Your task to perform on an android device: Add "alienware area 51" to the cart on ebay.com, then select checkout. Image 0: 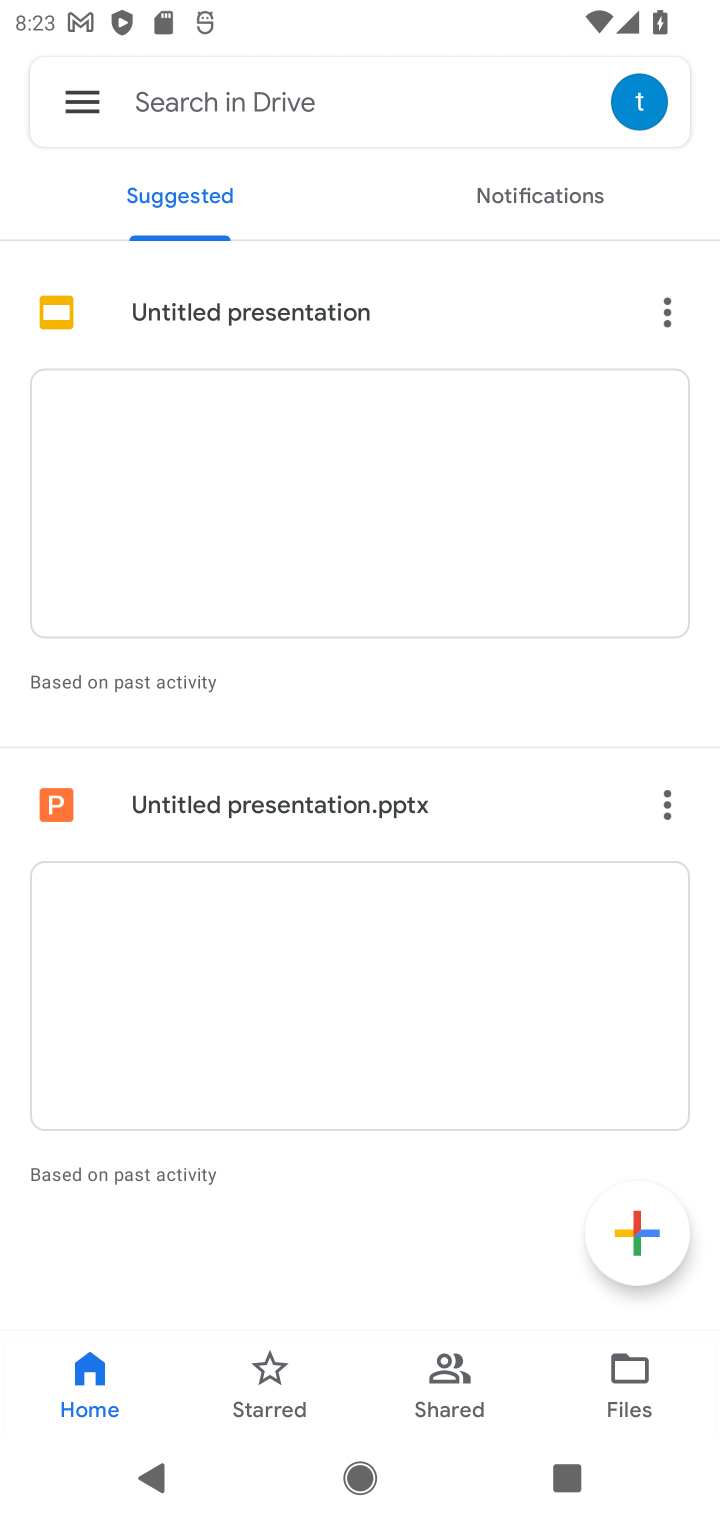
Step 0: press home button
Your task to perform on an android device: Add "alienware area 51" to the cart on ebay.com, then select checkout. Image 1: 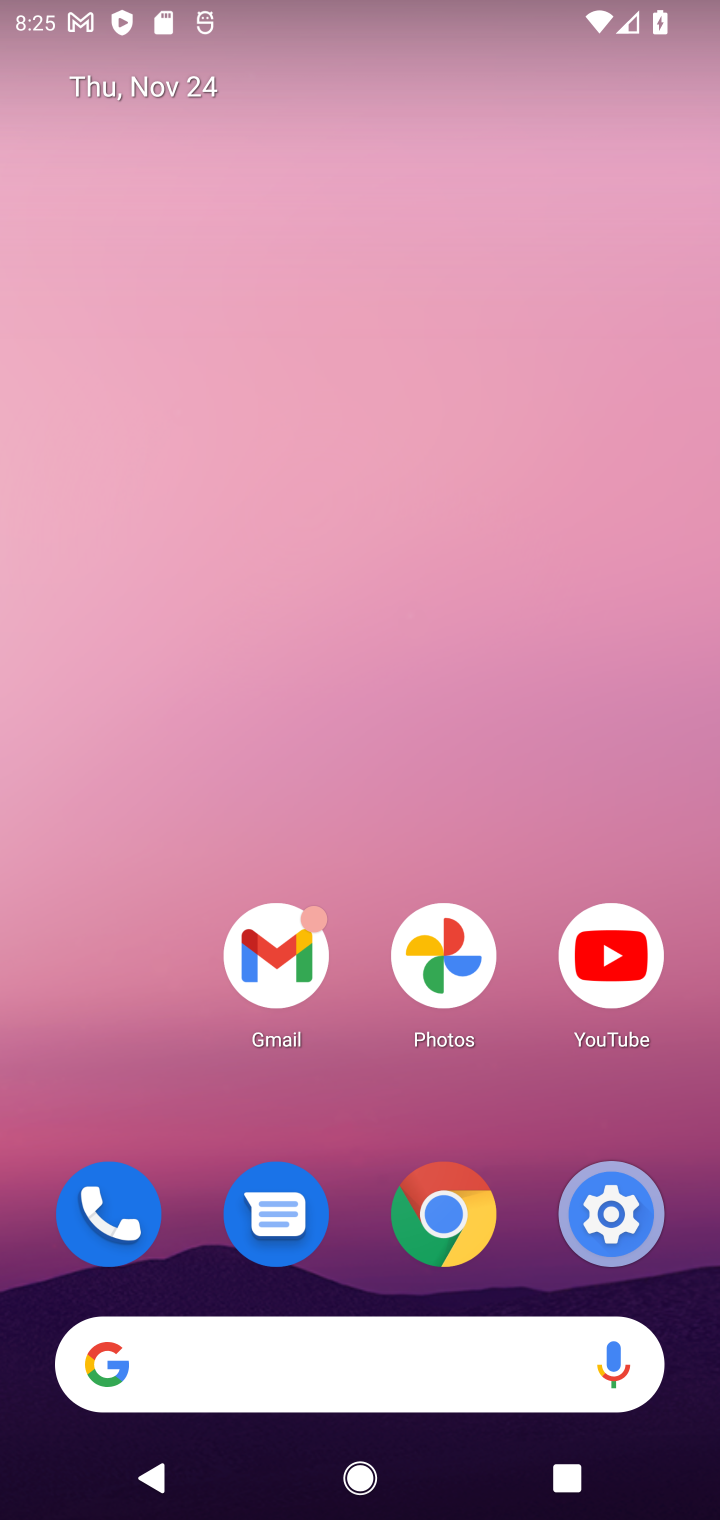
Step 1: click (360, 1352)
Your task to perform on an android device: Add "alienware area 51" to the cart on ebay.com, then select checkout. Image 2: 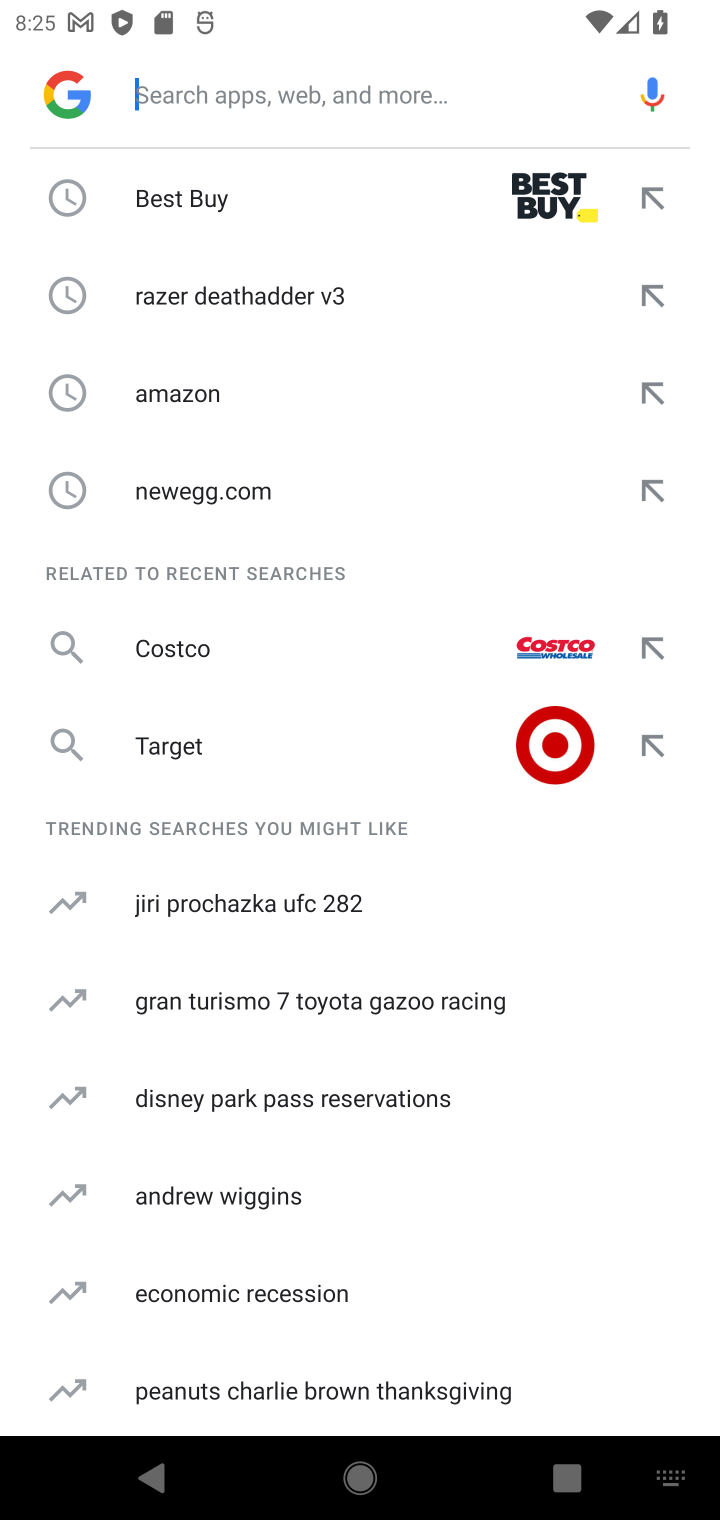
Step 2: type "ebay.com"
Your task to perform on an android device: Add "alienware area 51" to the cart on ebay.com, then select checkout. Image 3: 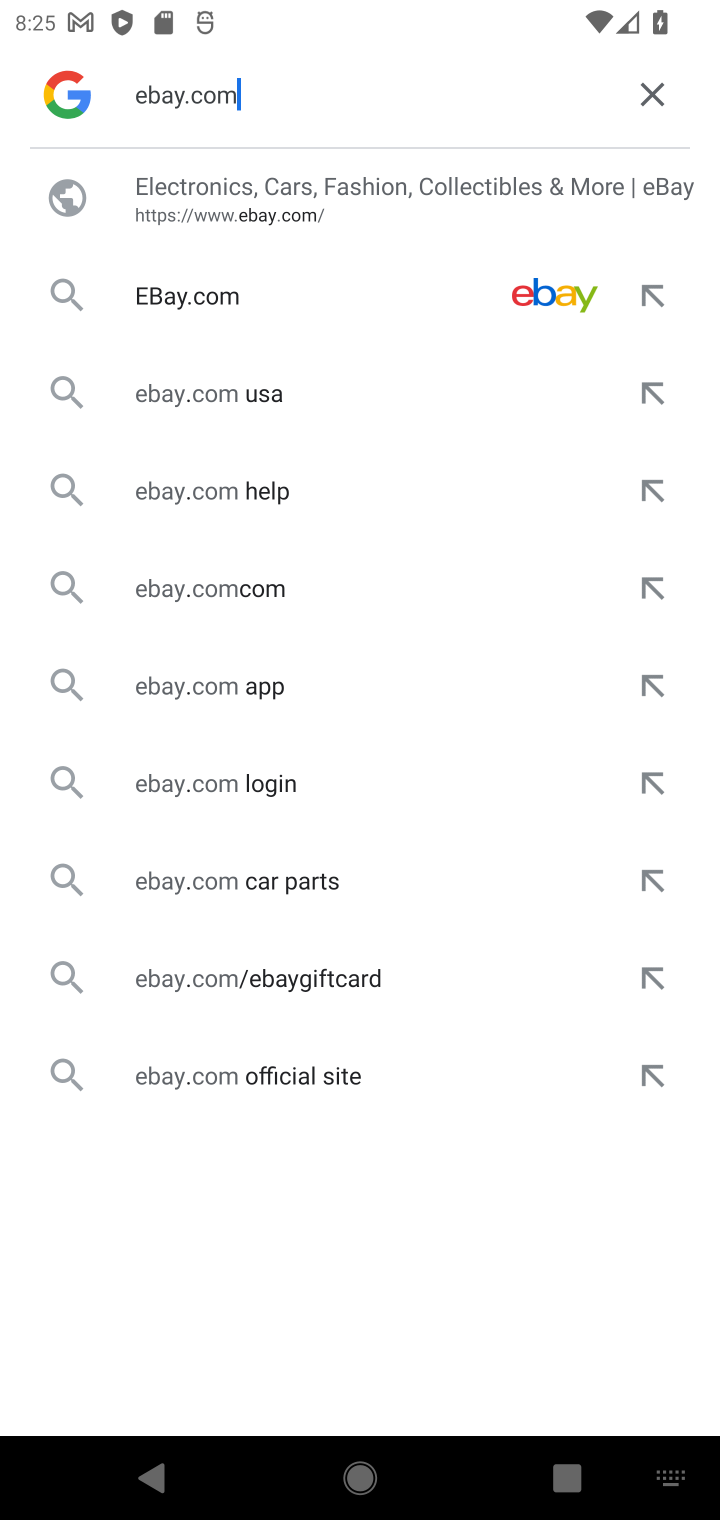
Step 3: click (281, 202)
Your task to perform on an android device: Add "alienware area 51" to the cart on ebay.com, then select checkout. Image 4: 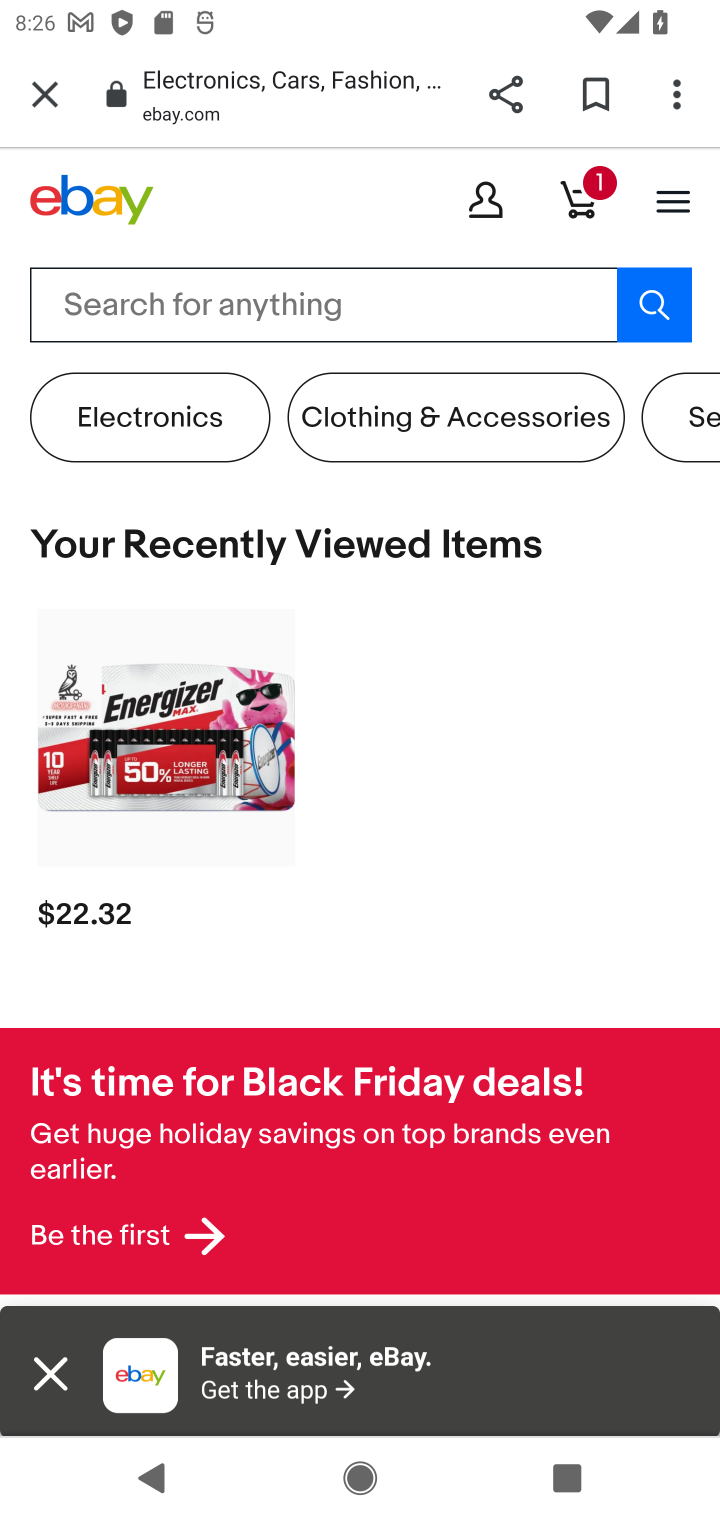
Step 4: click (271, 317)
Your task to perform on an android device: Add "alienware area 51" to the cart on ebay.com, then select checkout. Image 5: 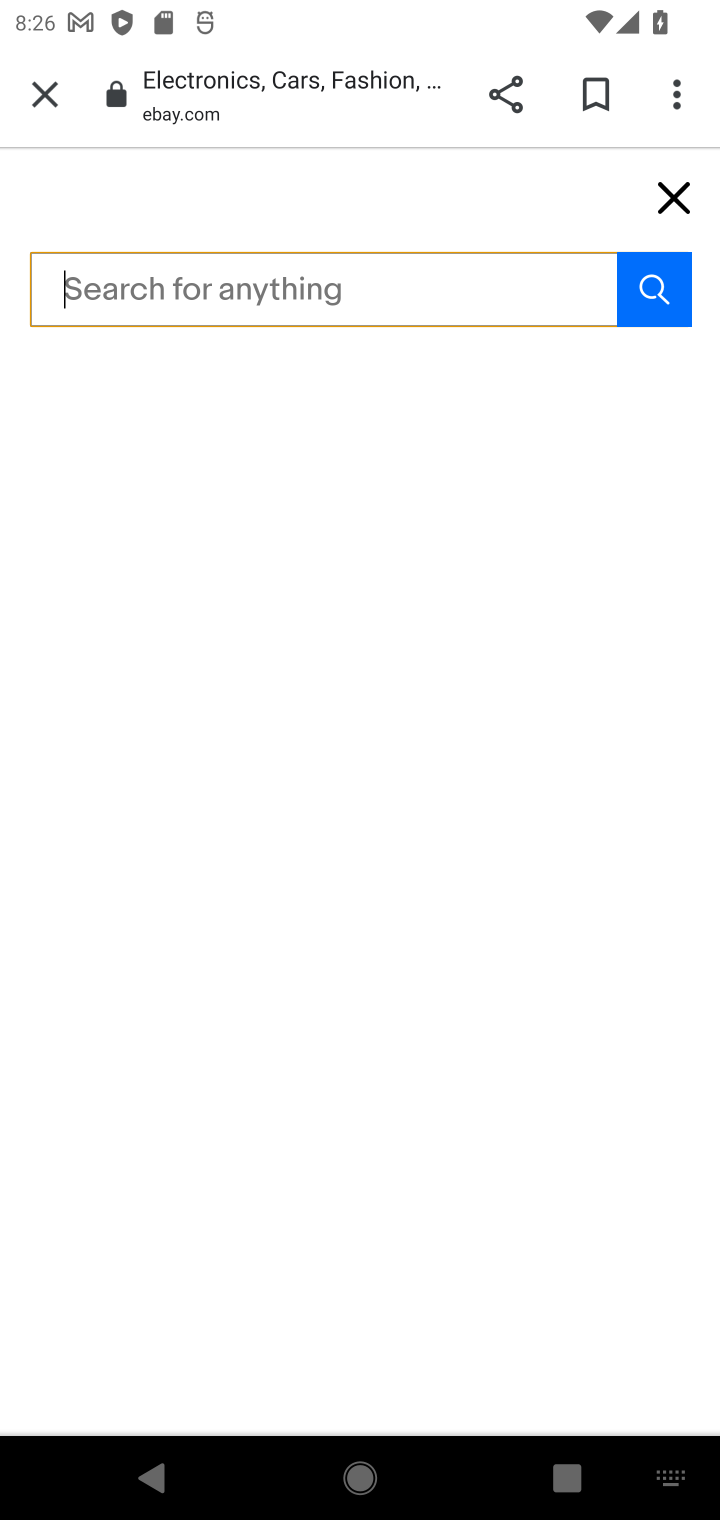
Step 5: type "alienware area 51"
Your task to perform on an android device: Add "alienware area 51" to the cart on ebay.com, then select checkout. Image 6: 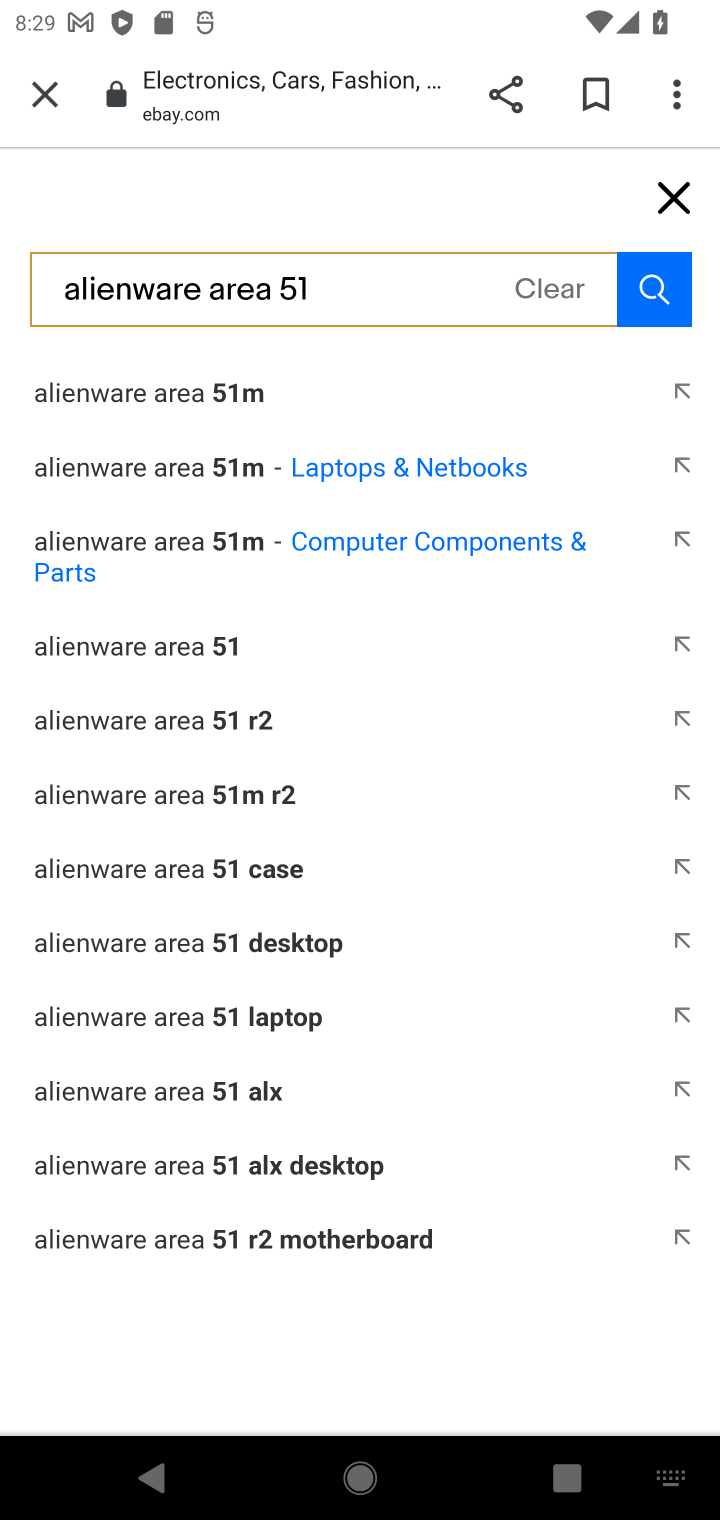
Step 6: click (129, 375)
Your task to perform on an android device: Add "alienware area 51" to the cart on ebay.com, then select checkout. Image 7: 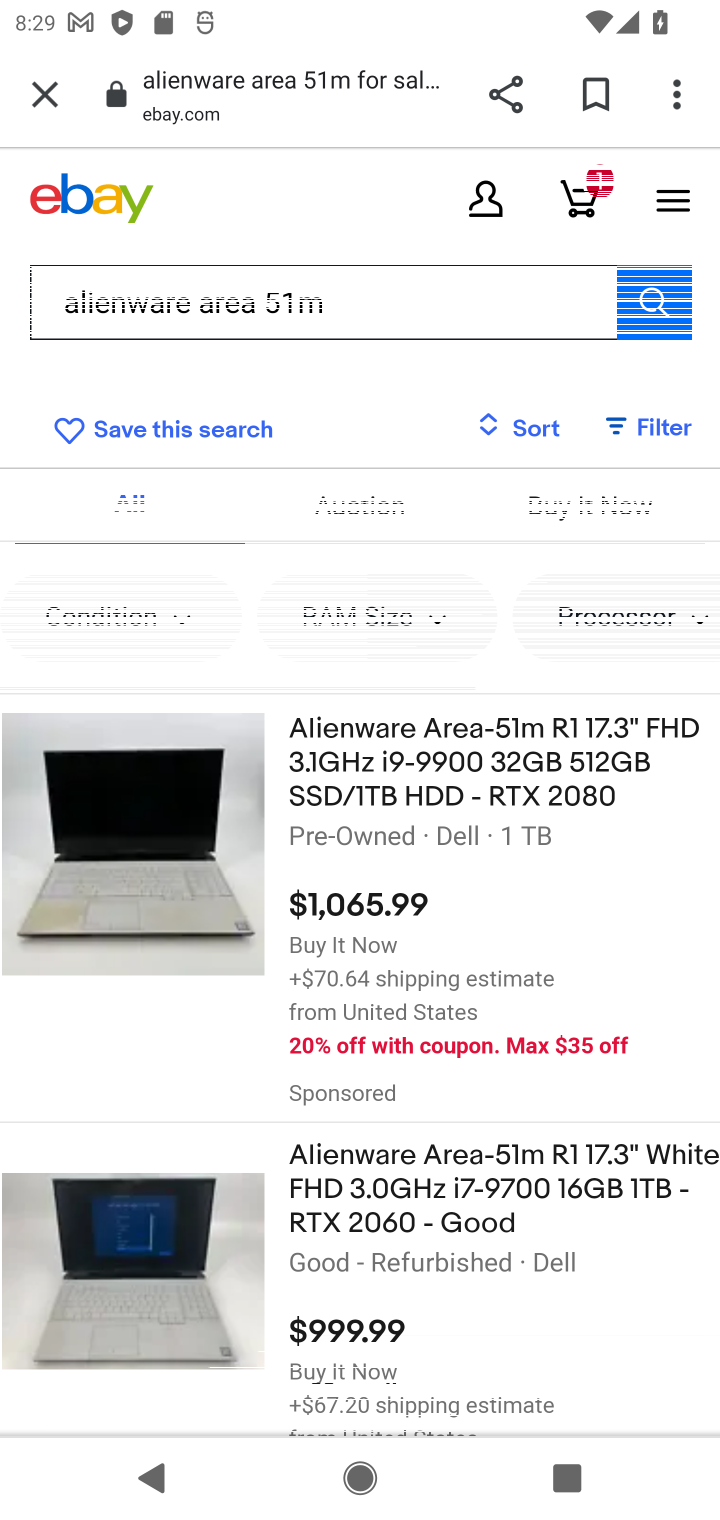
Step 7: click (403, 967)
Your task to perform on an android device: Add "alienware area 51" to the cart on ebay.com, then select checkout. Image 8: 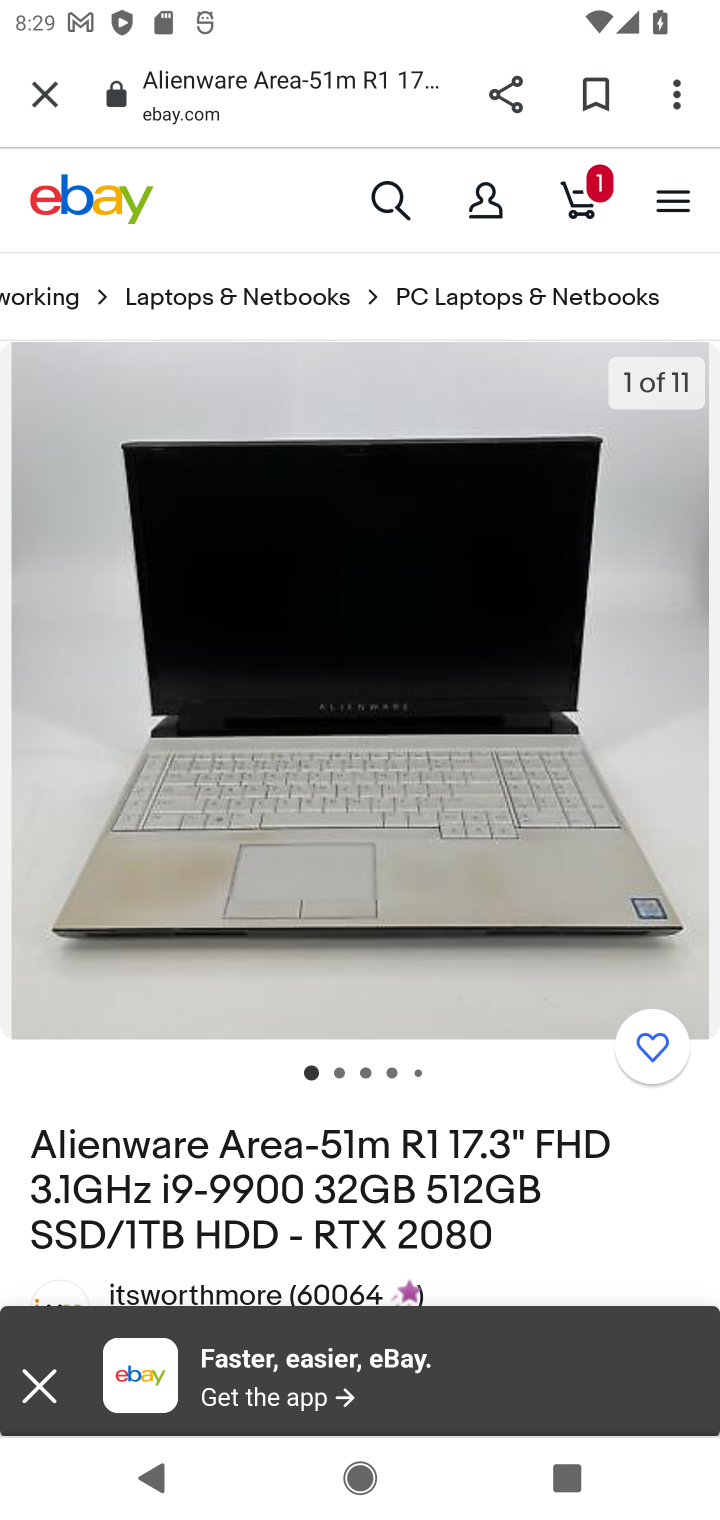
Step 8: drag from (308, 1128) to (302, 309)
Your task to perform on an android device: Add "alienware area 51" to the cart on ebay.com, then select checkout. Image 9: 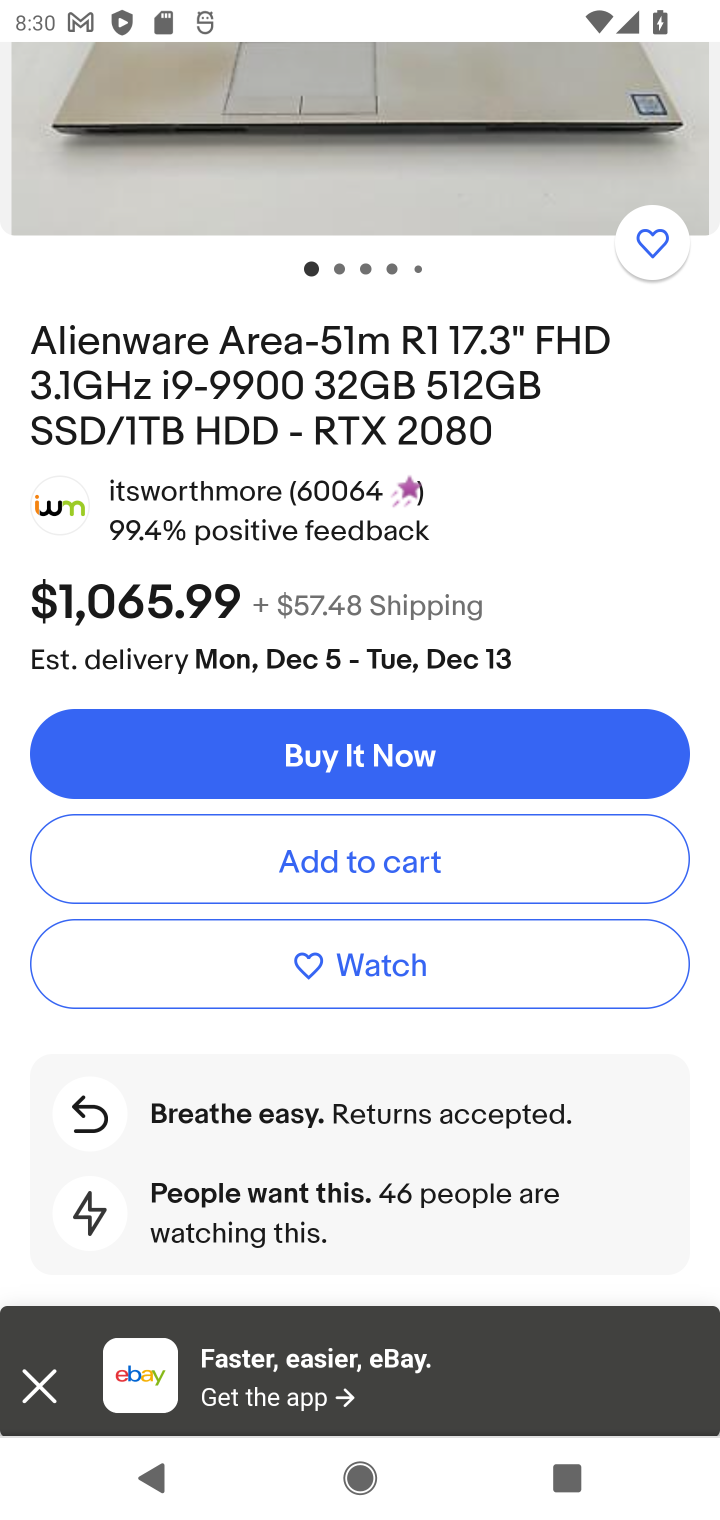
Step 9: click (519, 870)
Your task to perform on an android device: Add "alienware area 51" to the cart on ebay.com, then select checkout. Image 10: 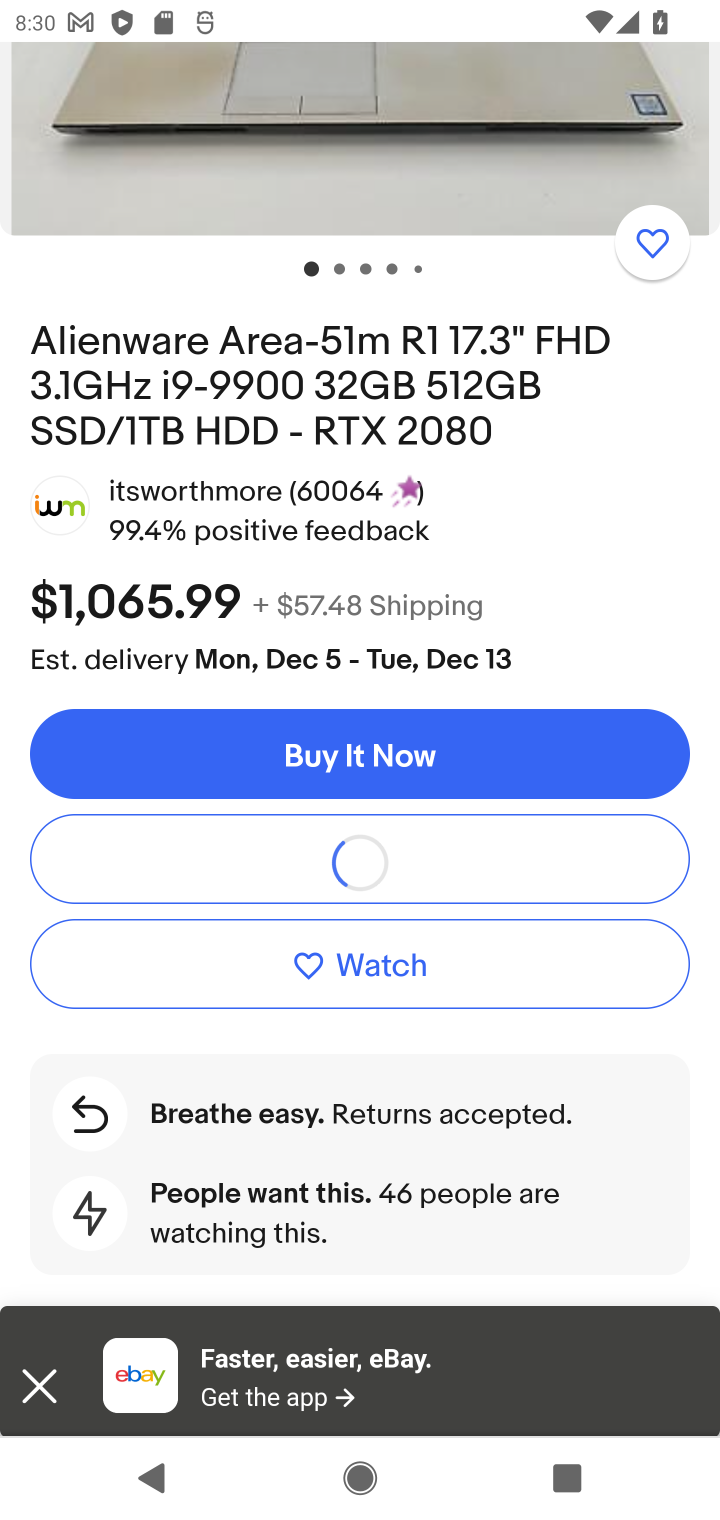
Step 10: task complete